Your task to perform on an android device: Go to network settings Image 0: 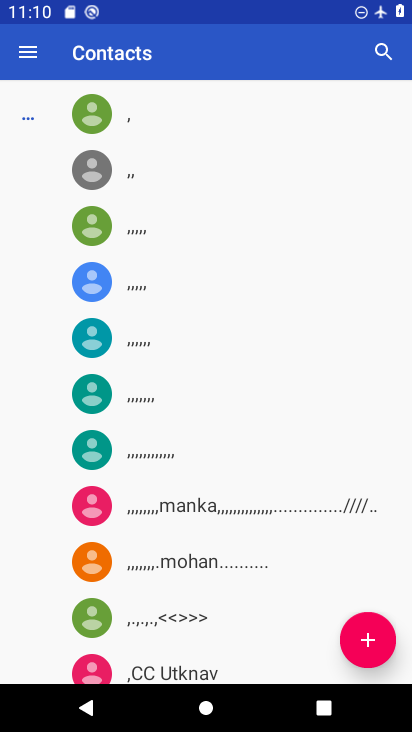
Step 0: press home button
Your task to perform on an android device: Go to network settings Image 1: 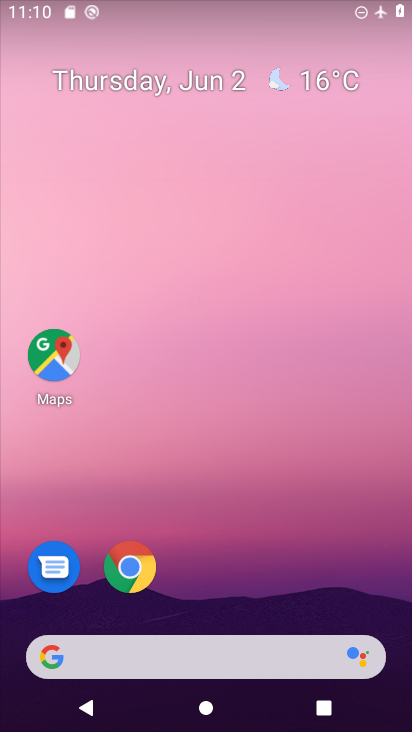
Step 1: drag from (302, 514) to (290, 50)
Your task to perform on an android device: Go to network settings Image 2: 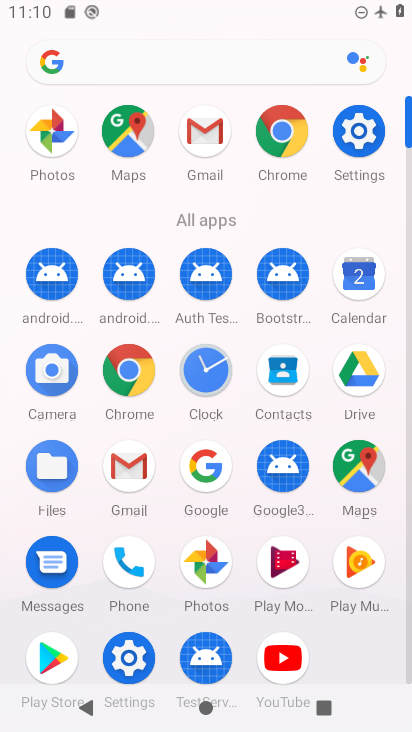
Step 2: click (363, 130)
Your task to perform on an android device: Go to network settings Image 3: 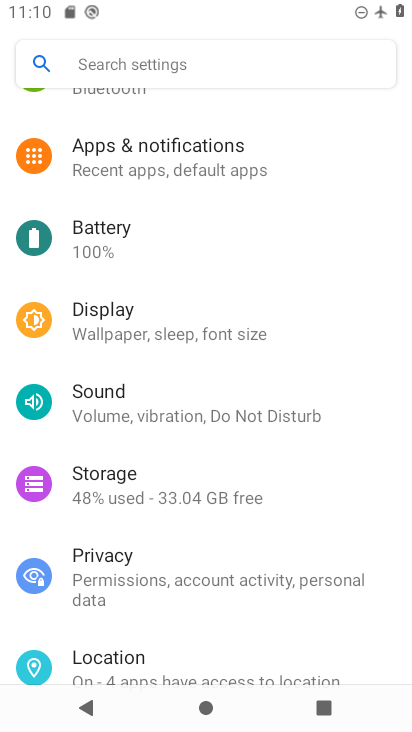
Step 3: drag from (250, 345) to (285, 612)
Your task to perform on an android device: Go to network settings Image 4: 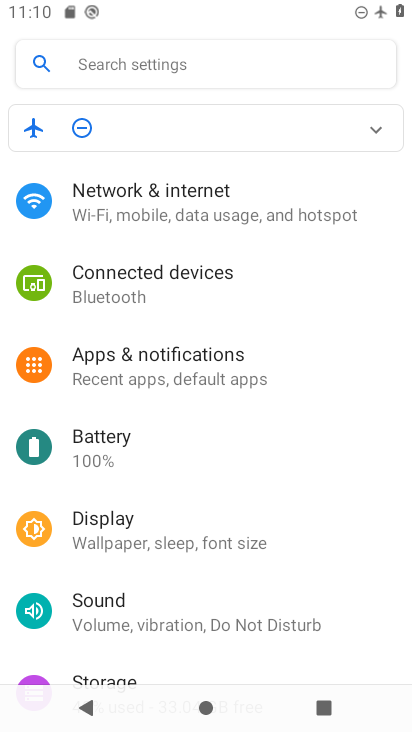
Step 4: click (196, 221)
Your task to perform on an android device: Go to network settings Image 5: 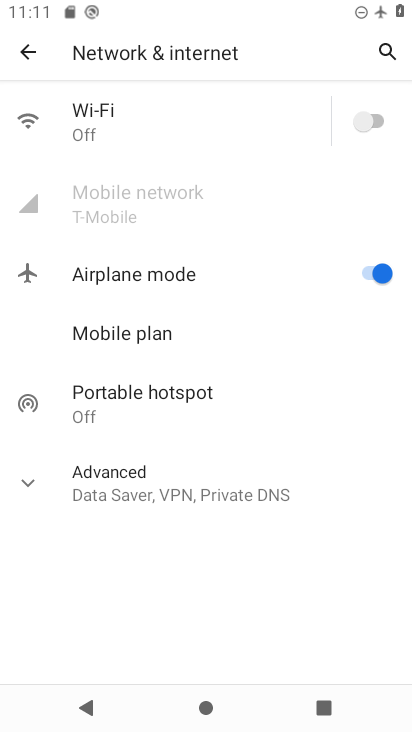
Step 5: task complete